Your task to perform on an android device: Go to sound settings Image 0: 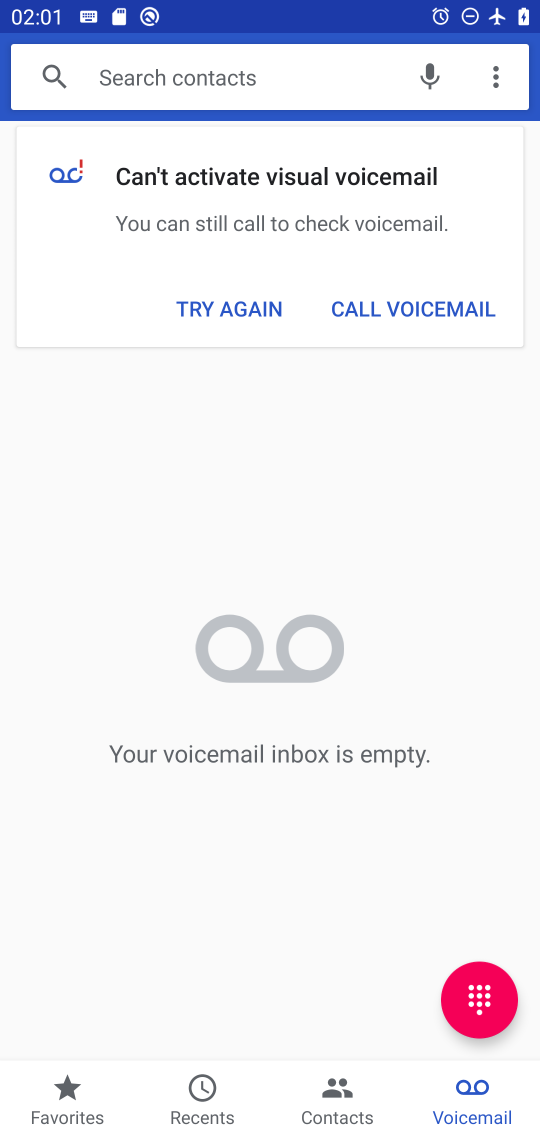
Step 0: press home button
Your task to perform on an android device: Go to sound settings Image 1: 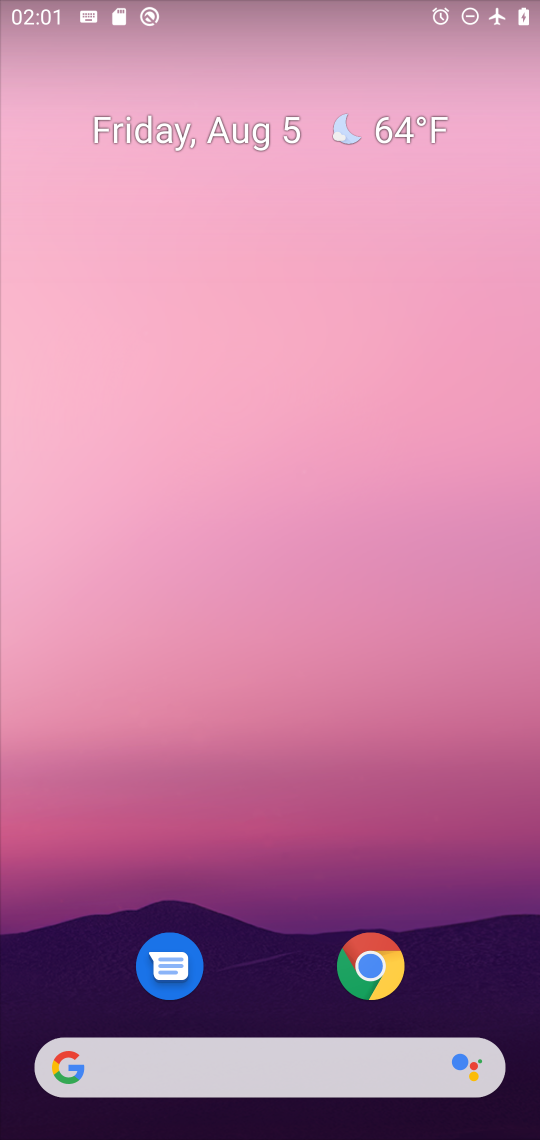
Step 1: drag from (299, 908) to (407, 93)
Your task to perform on an android device: Go to sound settings Image 2: 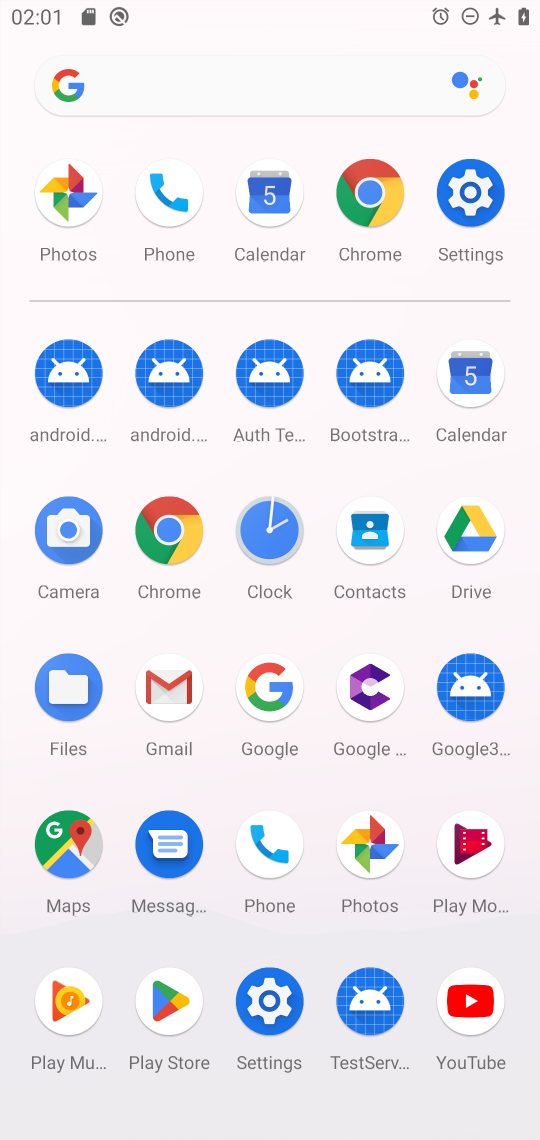
Step 2: click (476, 180)
Your task to perform on an android device: Go to sound settings Image 3: 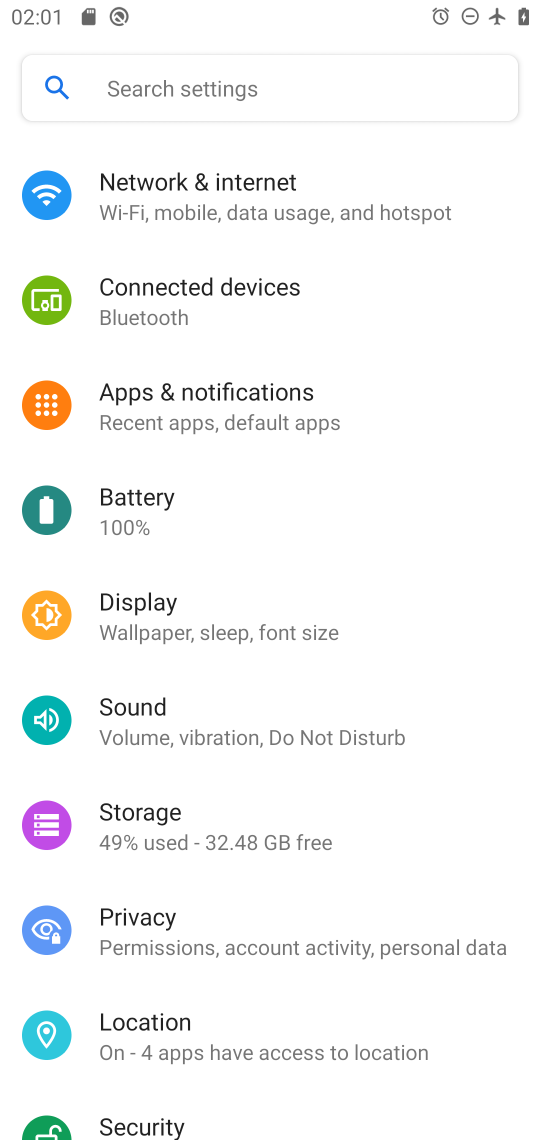
Step 3: click (176, 710)
Your task to perform on an android device: Go to sound settings Image 4: 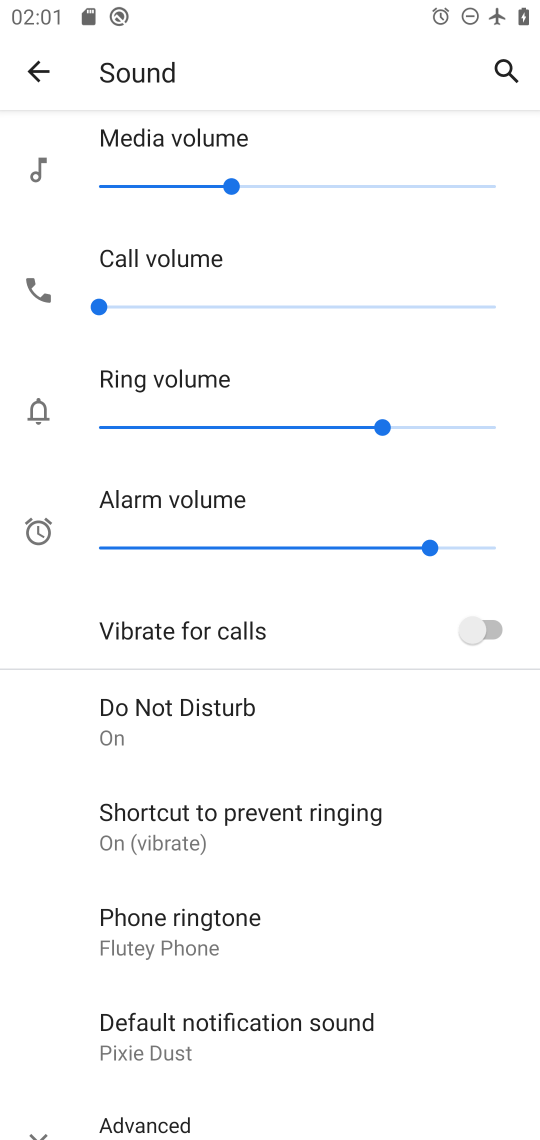
Step 4: task complete